Your task to perform on an android device: Toggle the flashlight Image 0: 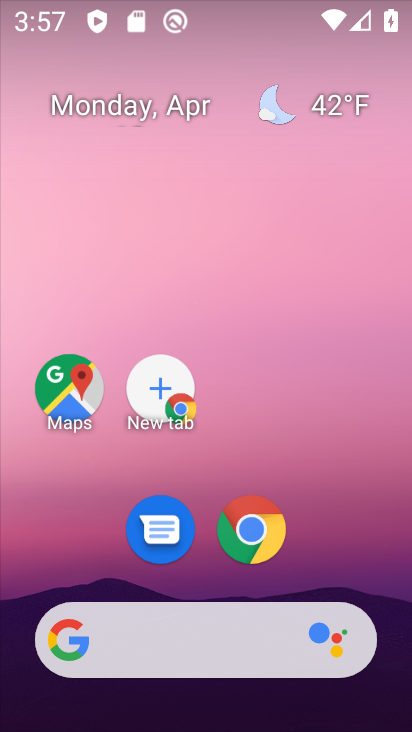
Step 0: drag from (143, 504) to (264, 15)
Your task to perform on an android device: Toggle the flashlight Image 1: 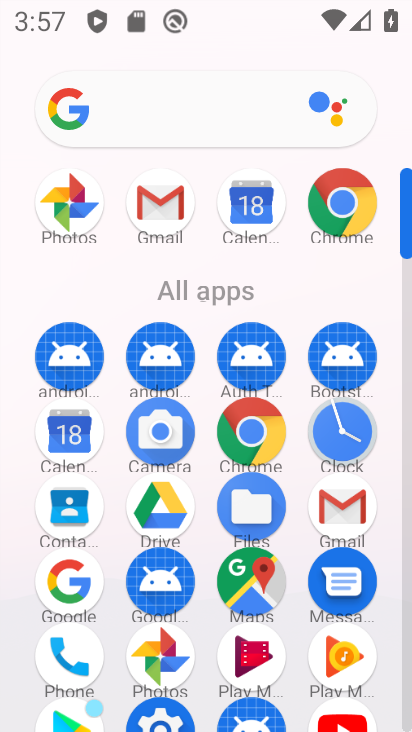
Step 1: drag from (196, 636) to (302, 34)
Your task to perform on an android device: Toggle the flashlight Image 2: 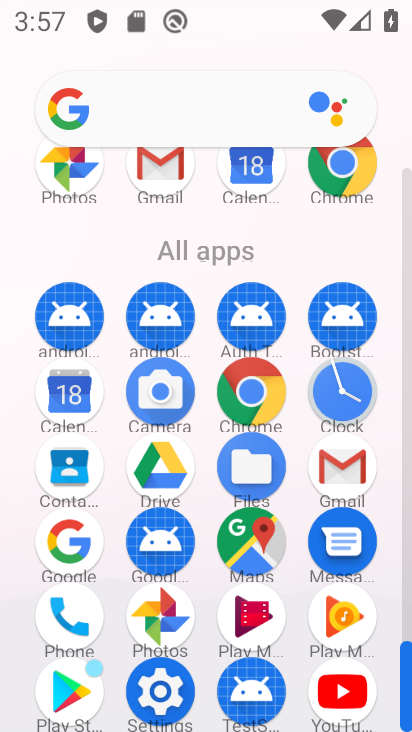
Step 2: click (340, 690)
Your task to perform on an android device: Toggle the flashlight Image 3: 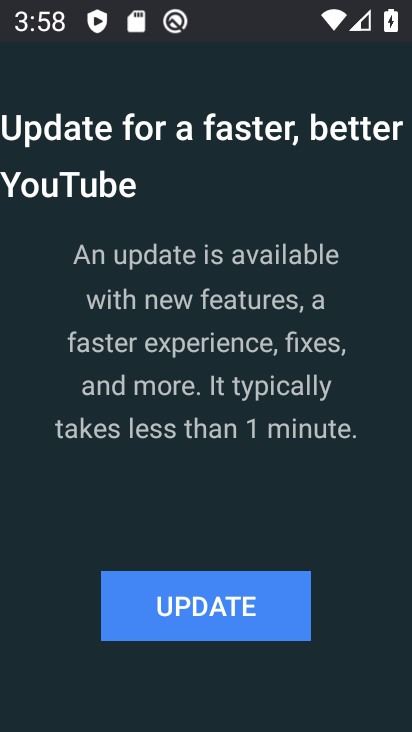
Step 3: press home button
Your task to perform on an android device: Toggle the flashlight Image 4: 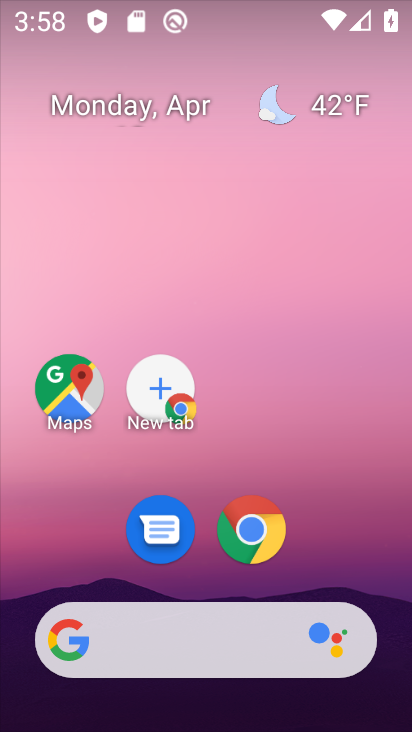
Step 4: drag from (267, 336) to (342, 15)
Your task to perform on an android device: Toggle the flashlight Image 5: 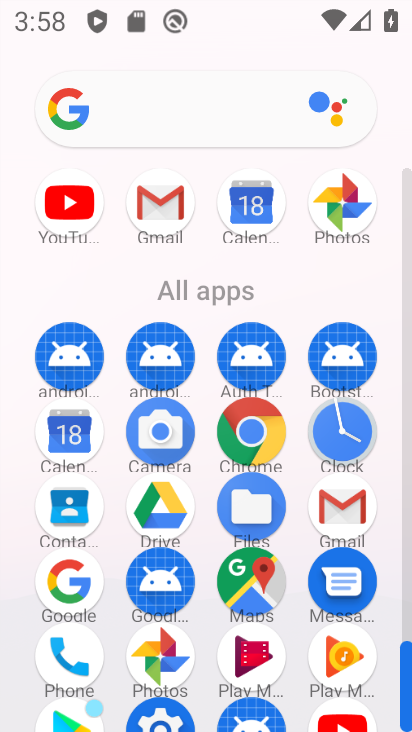
Step 5: drag from (190, 525) to (331, 21)
Your task to perform on an android device: Toggle the flashlight Image 6: 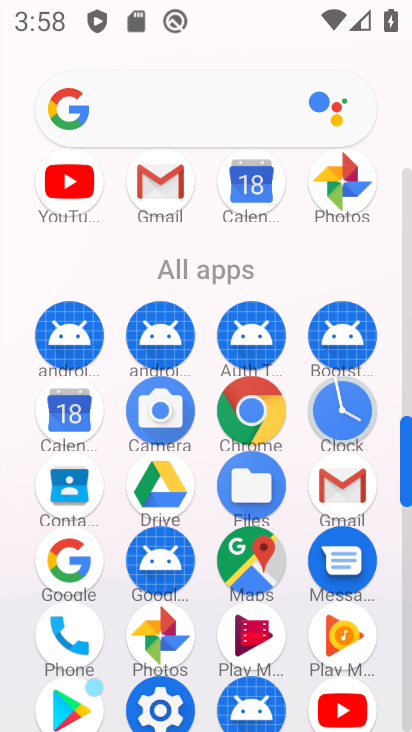
Step 6: click (153, 688)
Your task to perform on an android device: Toggle the flashlight Image 7: 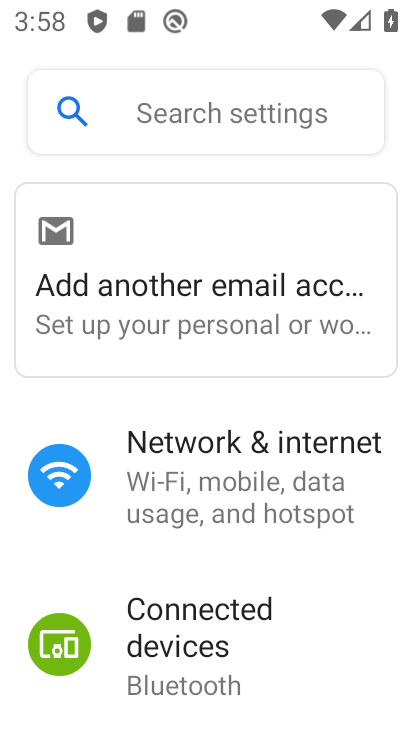
Step 7: click (173, 109)
Your task to perform on an android device: Toggle the flashlight Image 8: 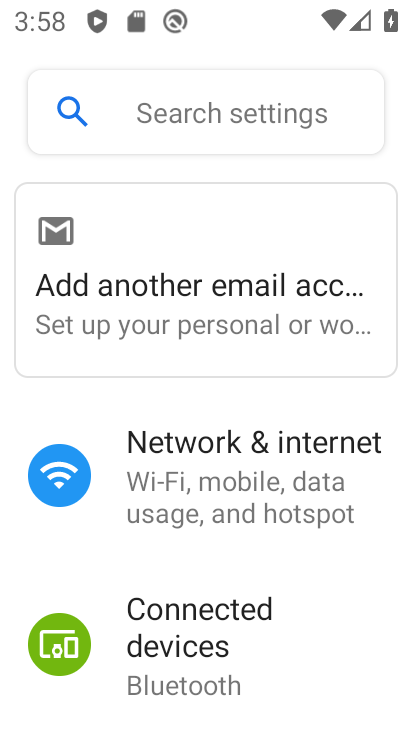
Step 8: type ""
Your task to perform on an android device: Toggle the flashlight Image 9: 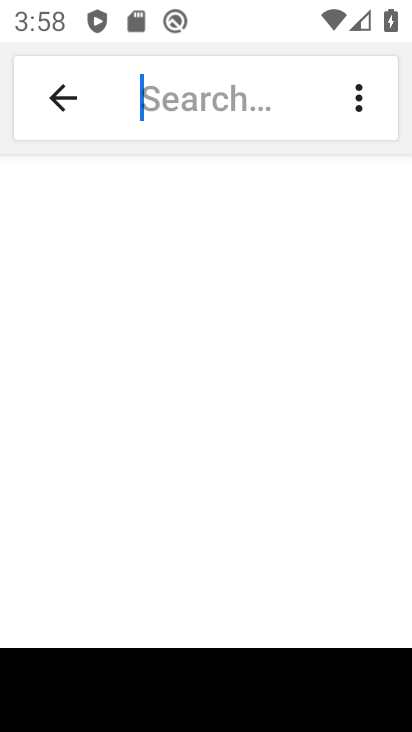
Step 9: click (153, 104)
Your task to perform on an android device: Toggle the flashlight Image 10: 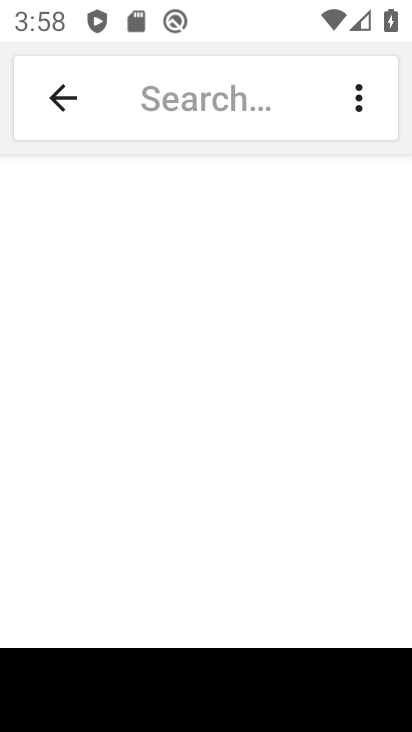
Step 10: type "flashlight"
Your task to perform on an android device: Toggle the flashlight Image 11: 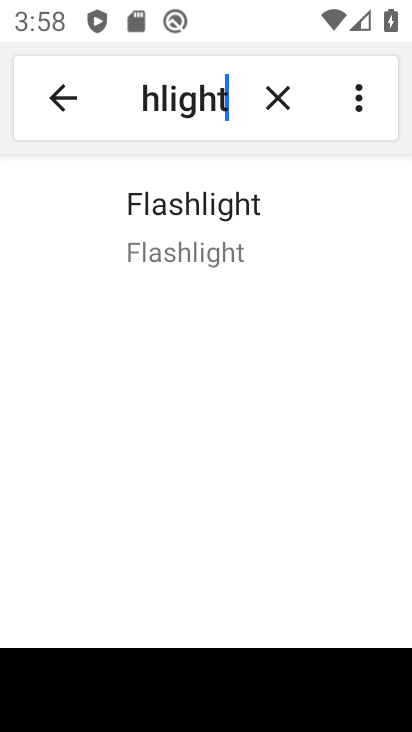
Step 11: click (224, 234)
Your task to perform on an android device: Toggle the flashlight Image 12: 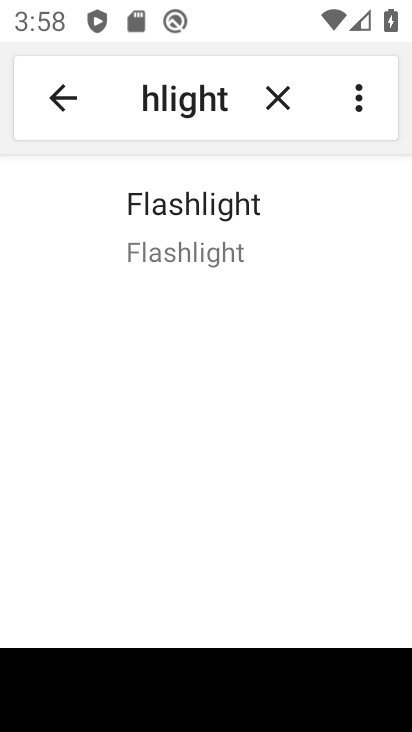
Step 12: task complete